Your task to perform on an android device: open app "Lyft - Rideshare, Bikes, Scooters & Transit" Image 0: 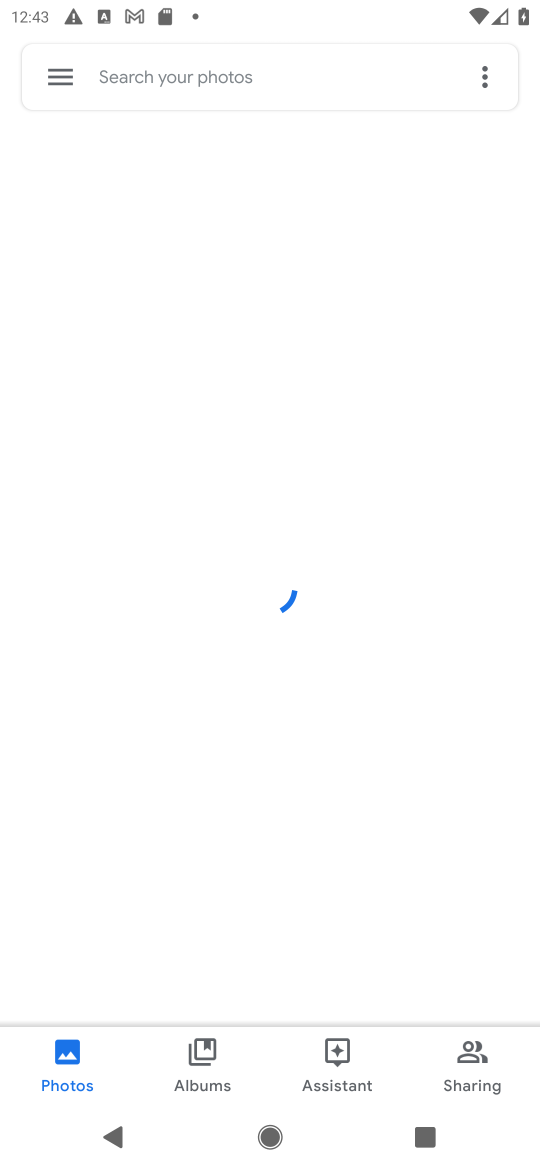
Step 0: press home button
Your task to perform on an android device: open app "Lyft - Rideshare, Bikes, Scooters & Transit" Image 1: 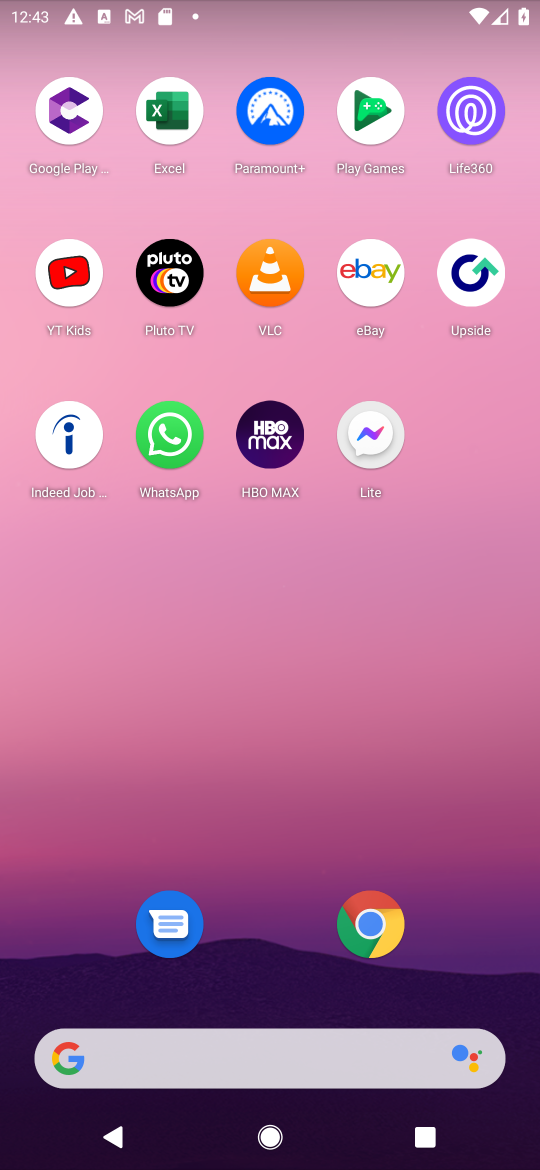
Step 1: drag from (475, 964) to (477, 175)
Your task to perform on an android device: open app "Lyft - Rideshare, Bikes, Scooters & Transit" Image 2: 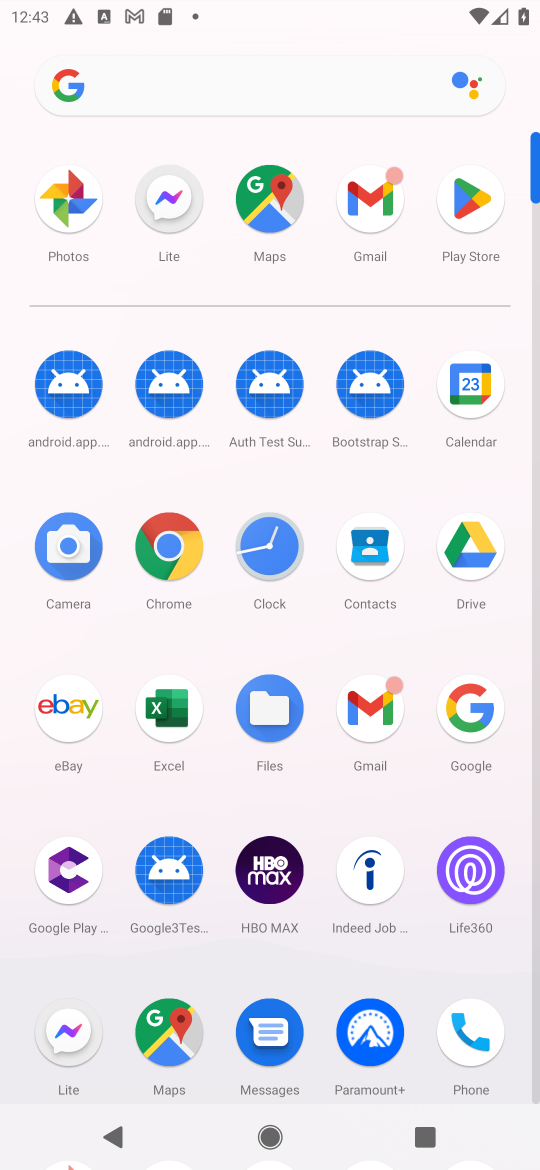
Step 2: click (465, 188)
Your task to perform on an android device: open app "Lyft - Rideshare, Bikes, Scooters & Transit" Image 3: 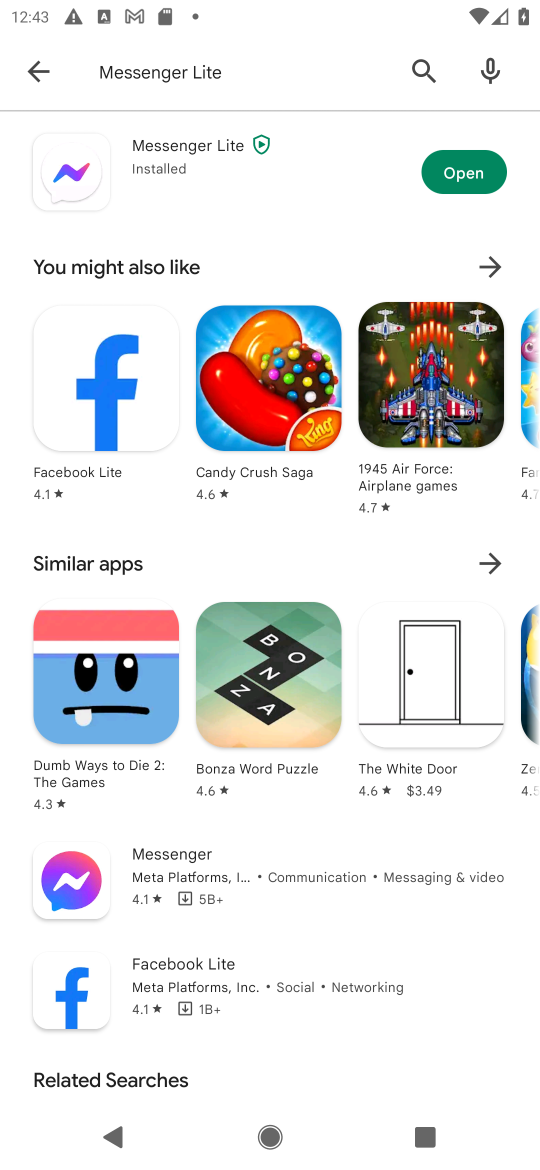
Step 3: press back button
Your task to perform on an android device: open app "Lyft - Rideshare, Bikes, Scooters & Transit" Image 4: 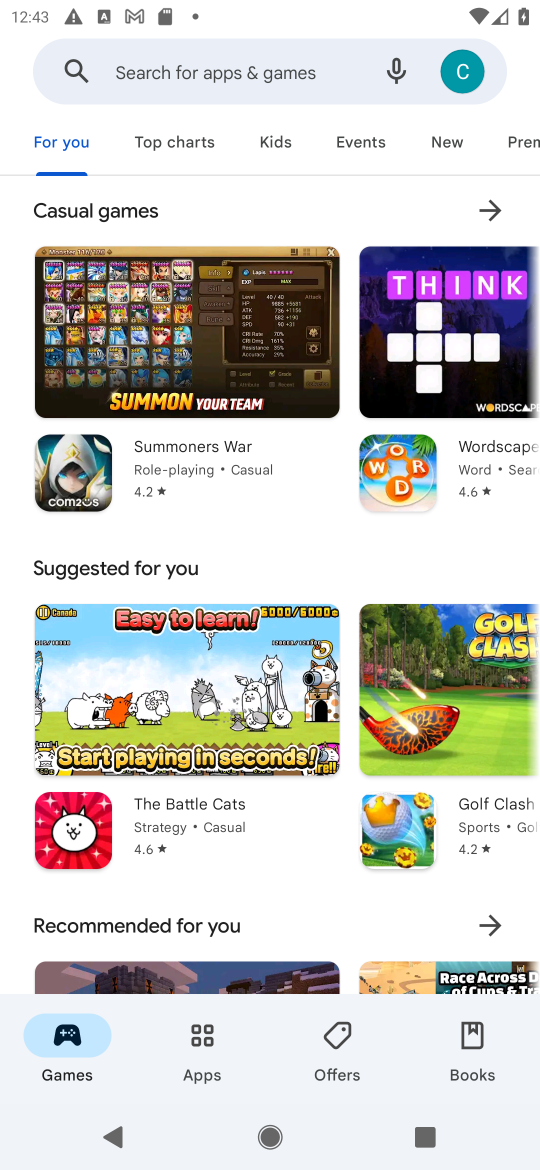
Step 4: click (197, 75)
Your task to perform on an android device: open app "Lyft - Rideshare, Bikes, Scooters & Transit" Image 5: 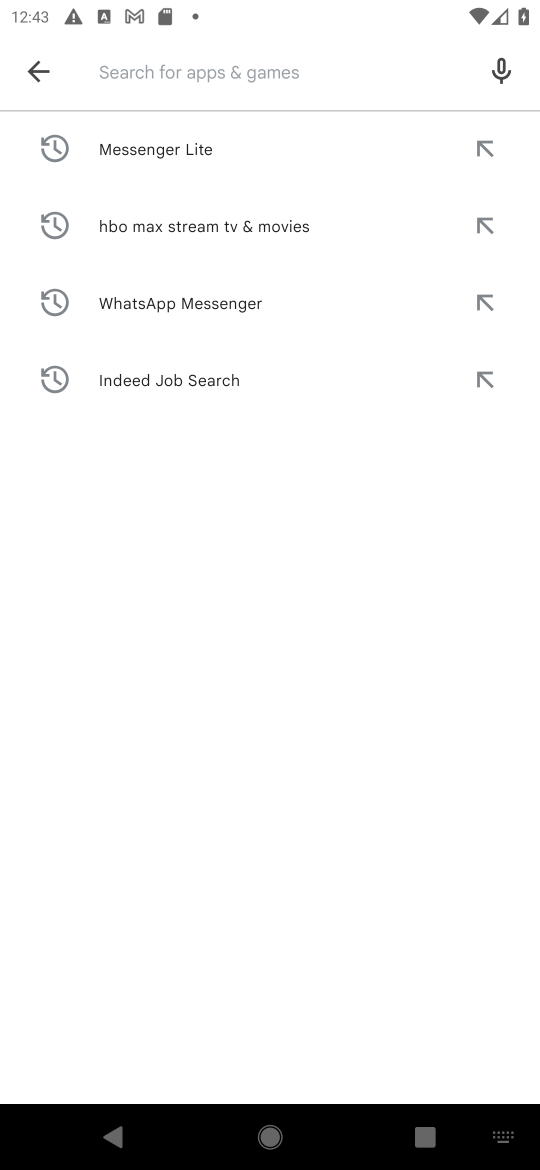
Step 5: press enter
Your task to perform on an android device: open app "Lyft - Rideshare, Bikes, Scooters & Transit" Image 6: 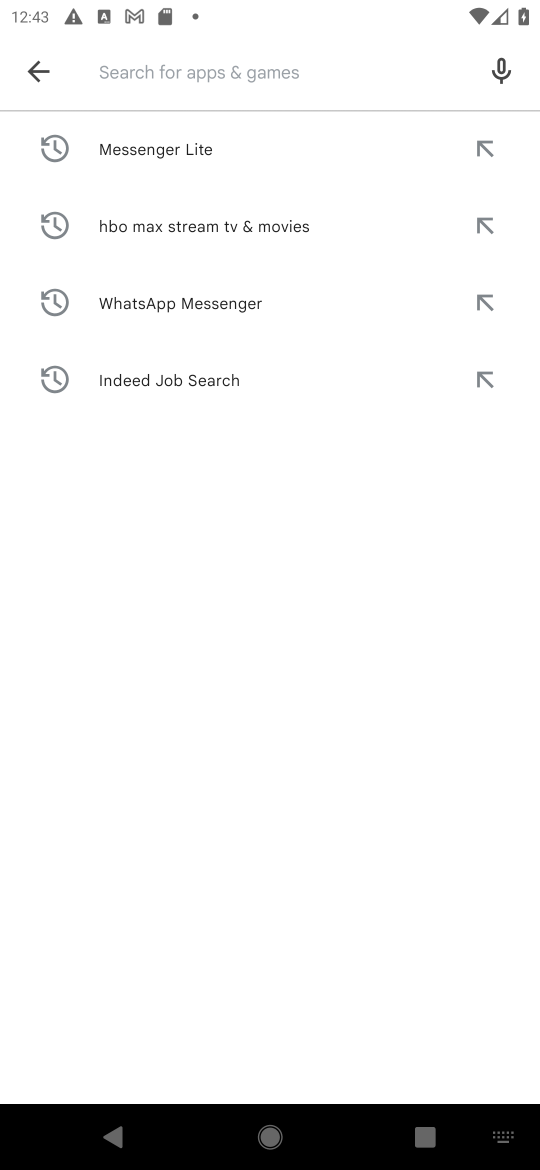
Step 6: type "Lyft - Rideshare, Bikes, Scooters & Transit"
Your task to perform on an android device: open app "Lyft - Rideshare, Bikes, Scooters & Transit" Image 7: 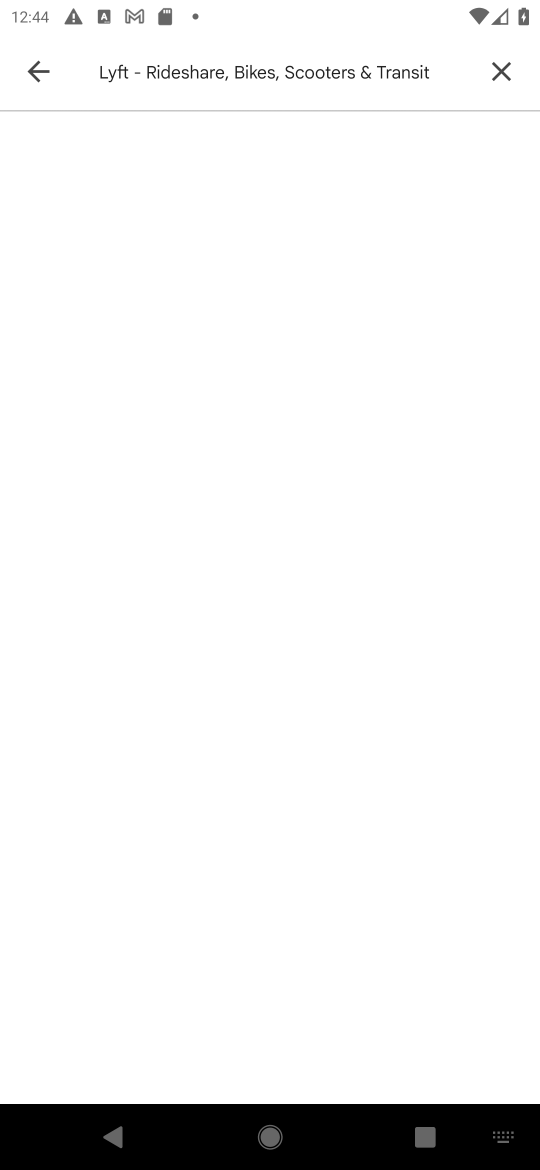
Step 7: task complete